Your task to perform on an android device: Go to accessibility settings Image 0: 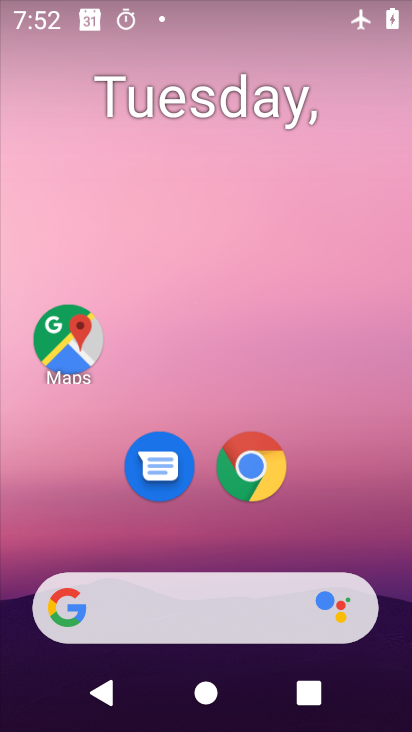
Step 0: drag from (31, 637) to (251, 146)
Your task to perform on an android device: Go to accessibility settings Image 1: 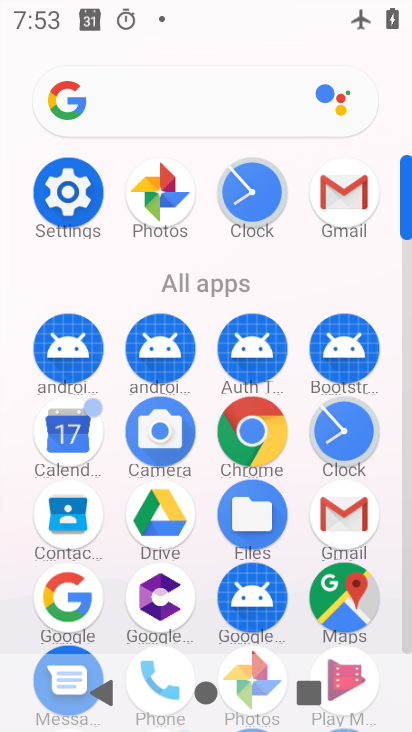
Step 1: click (53, 186)
Your task to perform on an android device: Go to accessibility settings Image 2: 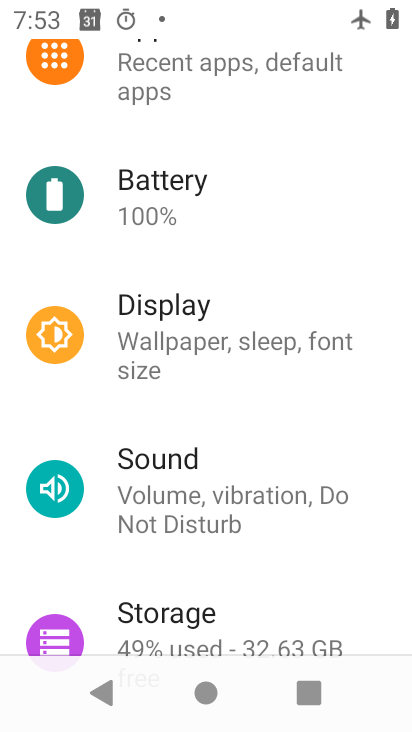
Step 2: drag from (47, 535) to (225, 179)
Your task to perform on an android device: Go to accessibility settings Image 3: 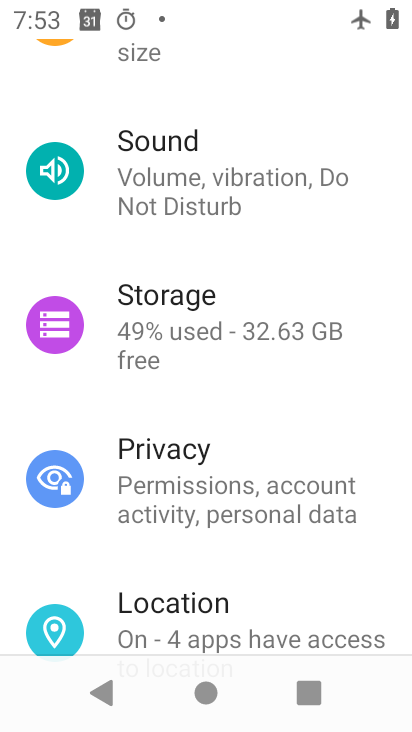
Step 3: drag from (3, 583) to (231, 195)
Your task to perform on an android device: Go to accessibility settings Image 4: 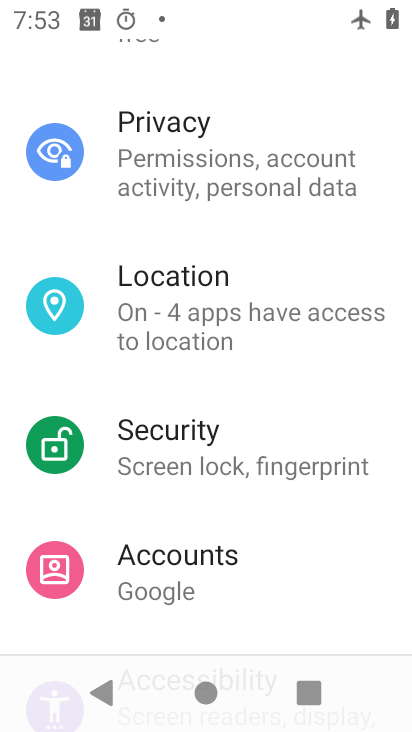
Step 4: drag from (50, 483) to (214, 188)
Your task to perform on an android device: Go to accessibility settings Image 5: 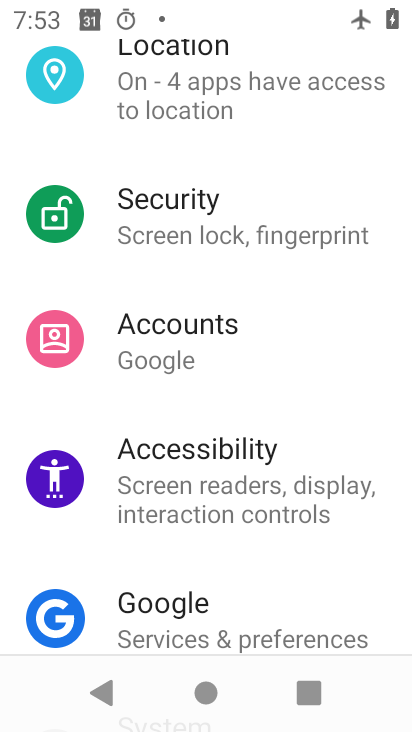
Step 5: click (160, 472)
Your task to perform on an android device: Go to accessibility settings Image 6: 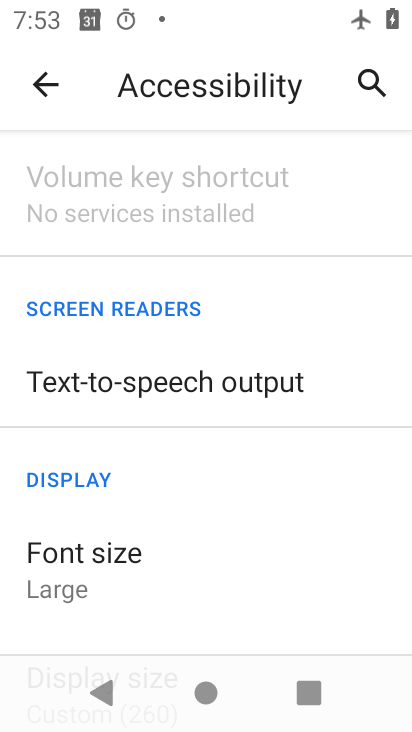
Step 6: task complete